Your task to perform on an android device: Find the nearest grocery store Image 0: 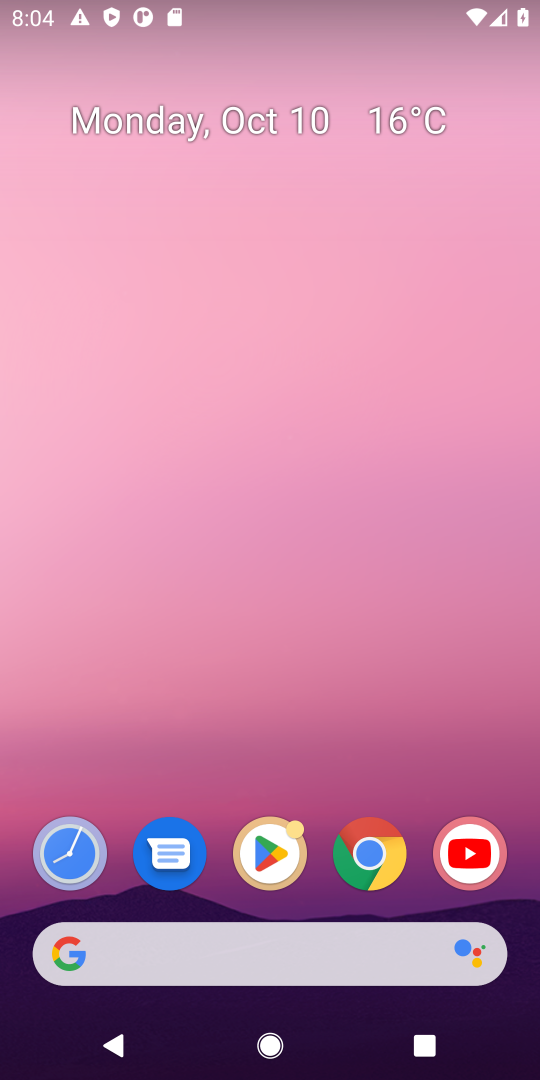
Step 0: drag from (328, 910) to (231, 87)
Your task to perform on an android device: Find the nearest grocery store Image 1: 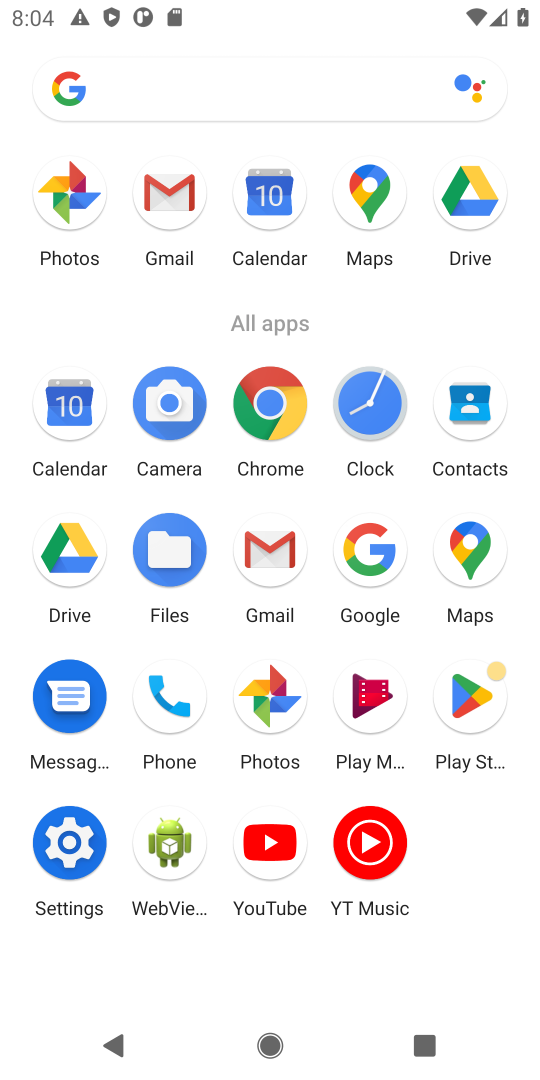
Step 1: click (273, 409)
Your task to perform on an android device: Find the nearest grocery store Image 2: 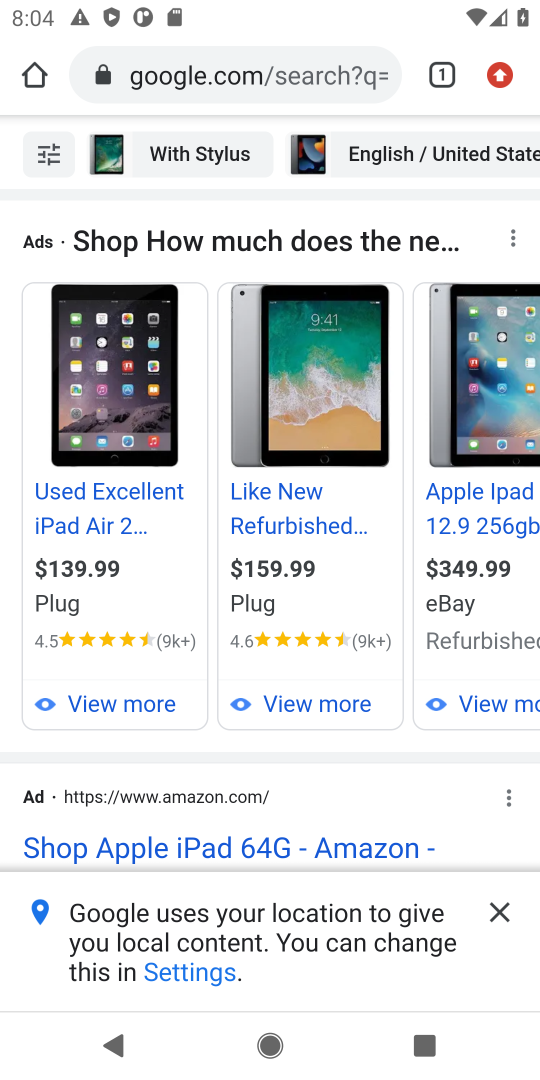
Step 2: drag from (316, 255) to (339, 748)
Your task to perform on an android device: Find the nearest grocery store Image 3: 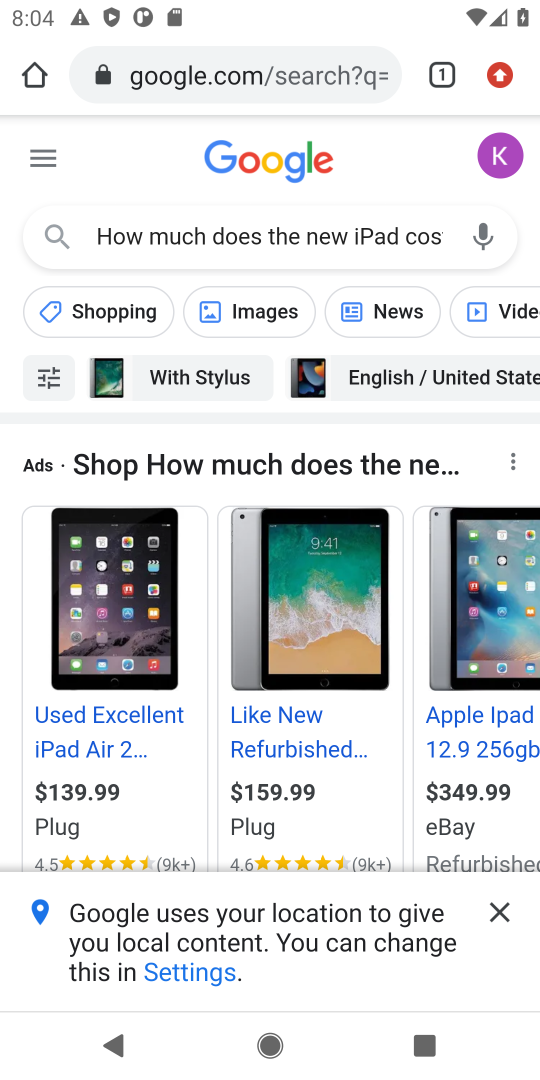
Step 3: click (357, 241)
Your task to perform on an android device: Find the nearest grocery store Image 4: 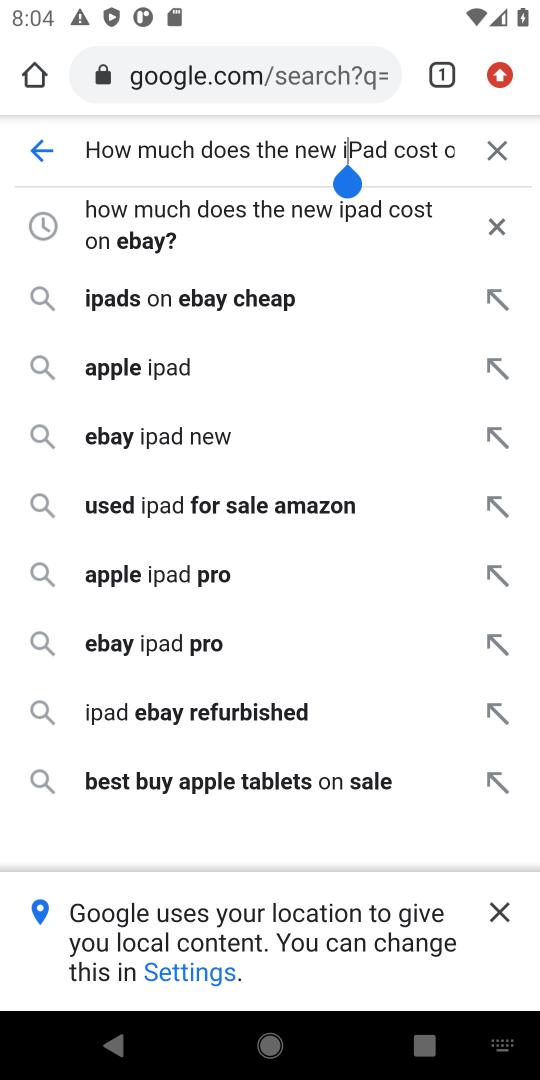
Step 4: click (500, 140)
Your task to perform on an android device: Find the nearest grocery store Image 5: 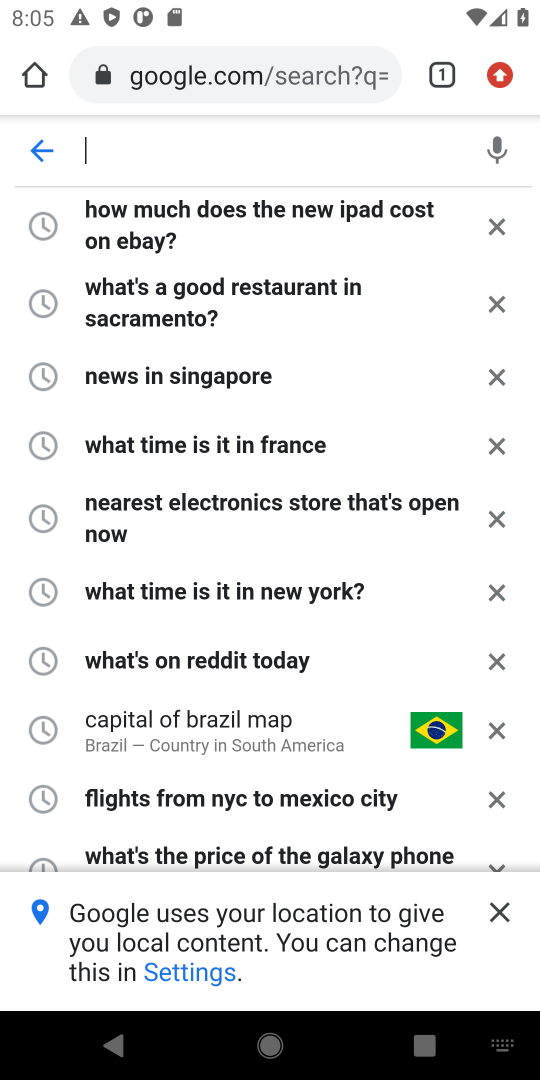
Step 5: type "Find the nearest grocery store"
Your task to perform on an android device: Find the nearest grocery store Image 6: 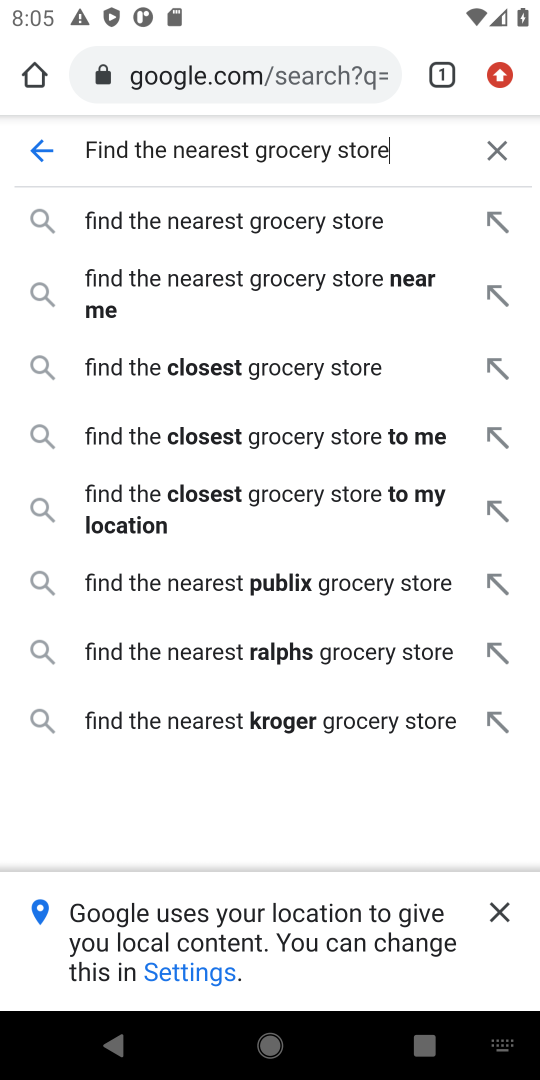
Step 6: click (284, 217)
Your task to perform on an android device: Find the nearest grocery store Image 7: 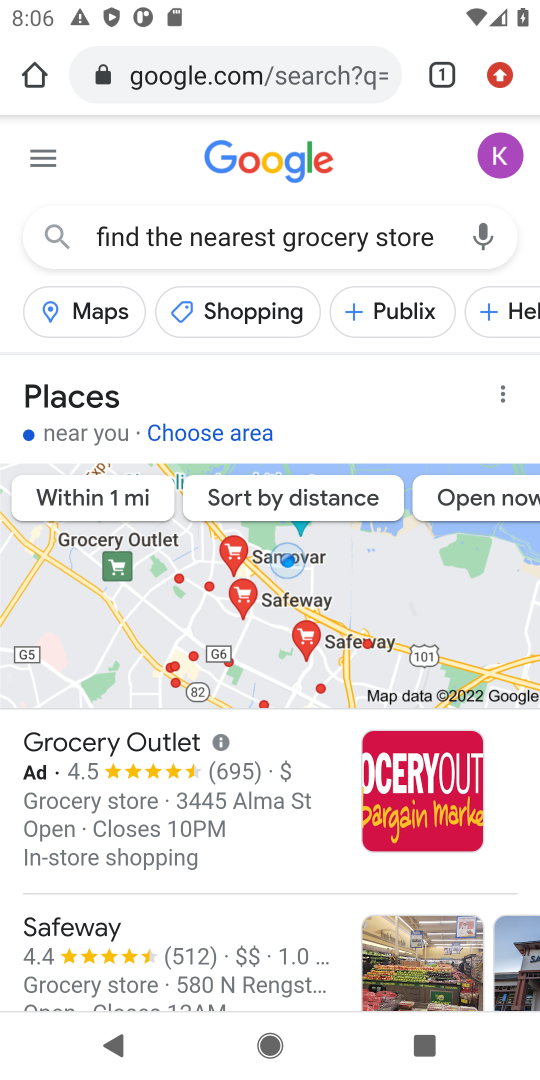
Step 7: task complete